Your task to perform on an android device: Open wifi settings Image 0: 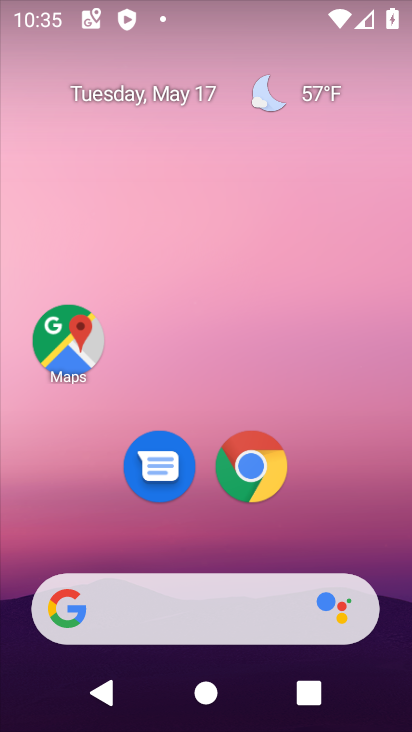
Step 0: drag from (213, 575) to (173, 68)
Your task to perform on an android device: Open wifi settings Image 1: 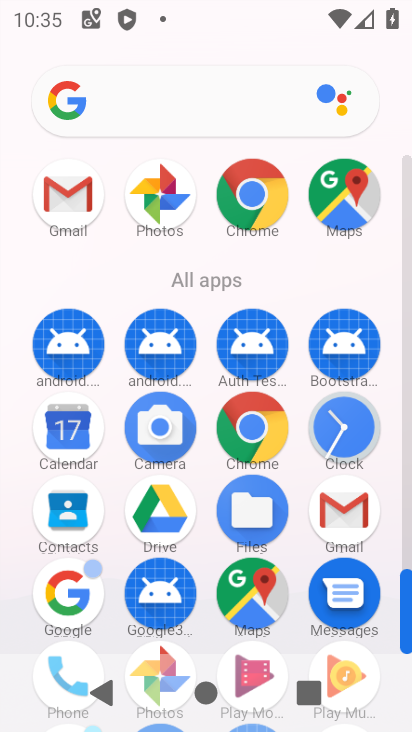
Step 1: drag from (101, 530) to (67, 11)
Your task to perform on an android device: Open wifi settings Image 2: 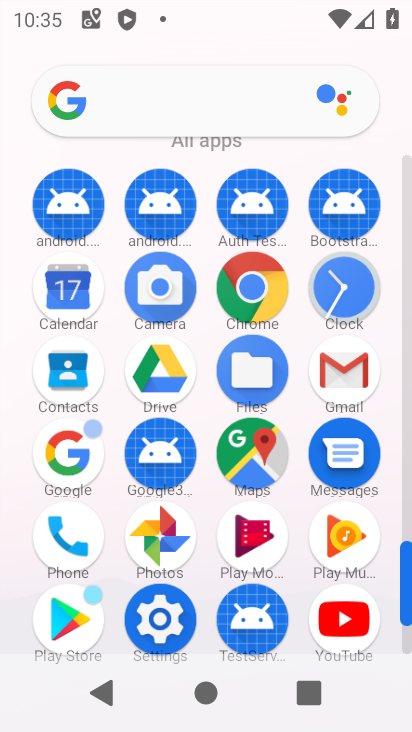
Step 2: click (164, 604)
Your task to perform on an android device: Open wifi settings Image 3: 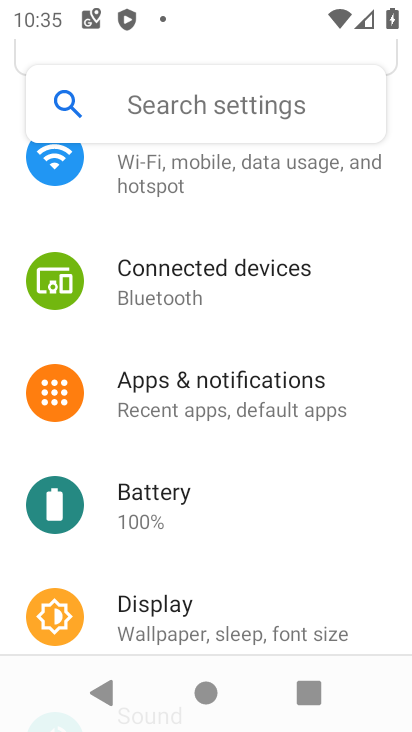
Step 3: click (167, 186)
Your task to perform on an android device: Open wifi settings Image 4: 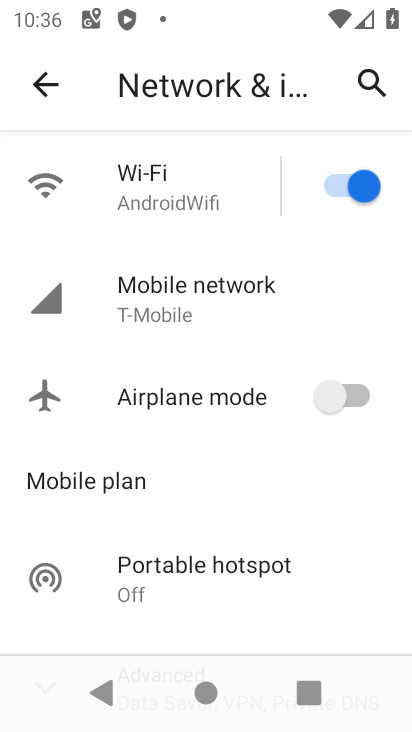
Step 4: click (167, 186)
Your task to perform on an android device: Open wifi settings Image 5: 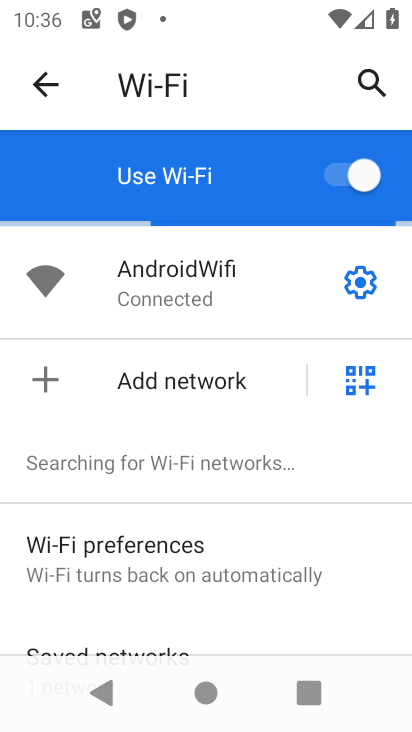
Step 5: task complete